Your task to perform on an android device: Do I have any events this weekend? Image 0: 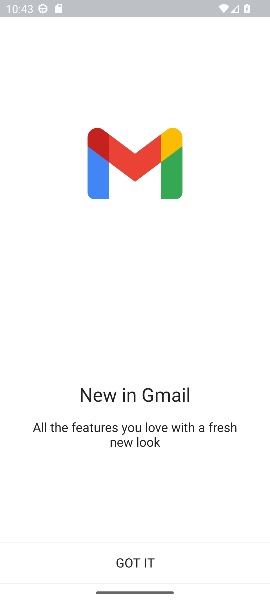
Step 0: click (147, 566)
Your task to perform on an android device: Do I have any events this weekend? Image 1: 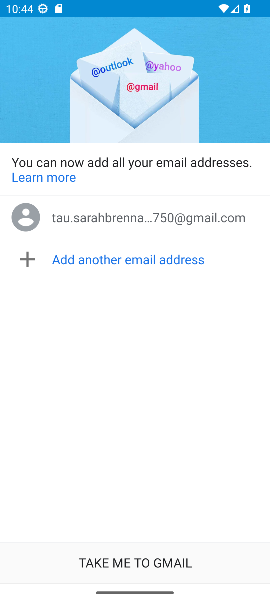
Step 1: click (141, 553)
Your task to perform on an android device: Do I have any events this weekend? Image 2: 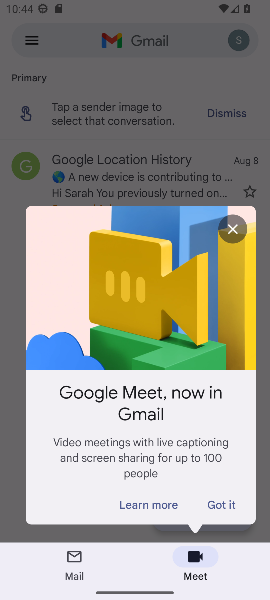
Step 2: task complete